Your task to perform on an android device: empty trash in the gmail app Image 0: 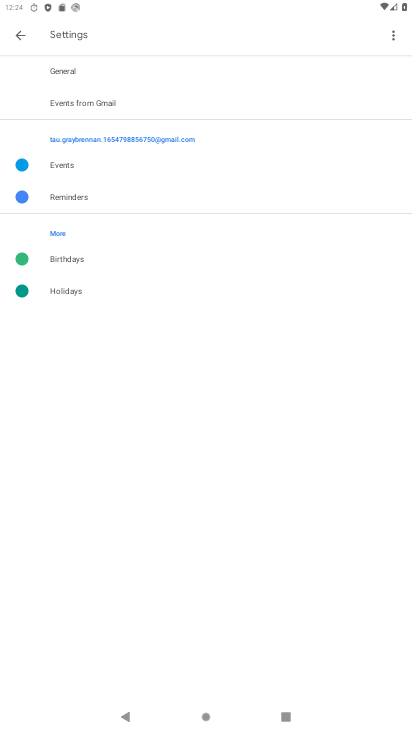
Step 0: press home button
Your task to perform on an android device: empty trash in the gmail app Image 1: 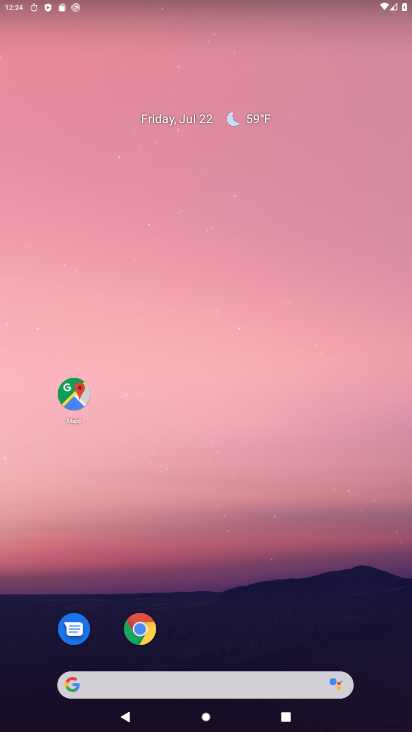
Step 1: drag from (243, 593) to (259, 116)
Your task to perform on an android device: empty trash in the gmail app Image 2: 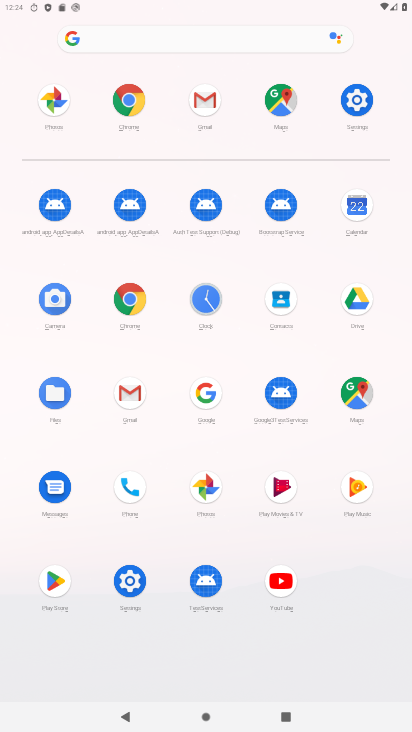
Step 2: click (129, 402)
Your task to perform on an android device: empty trash in the gmail app Image 3: 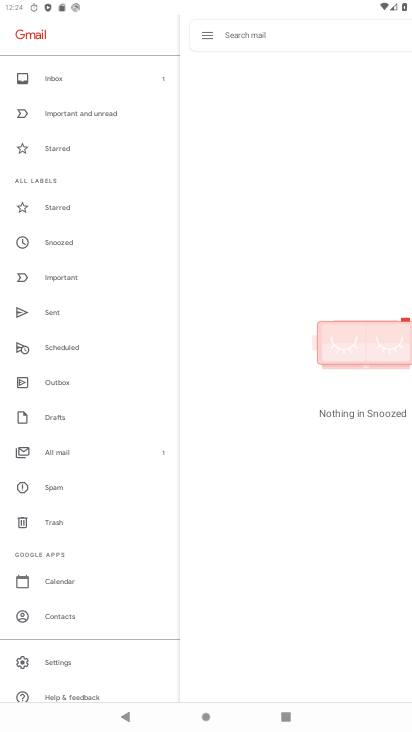
Step 3: click (50, 518)
Your task to perform on an android device: empty trash in the gmail app Image 4: 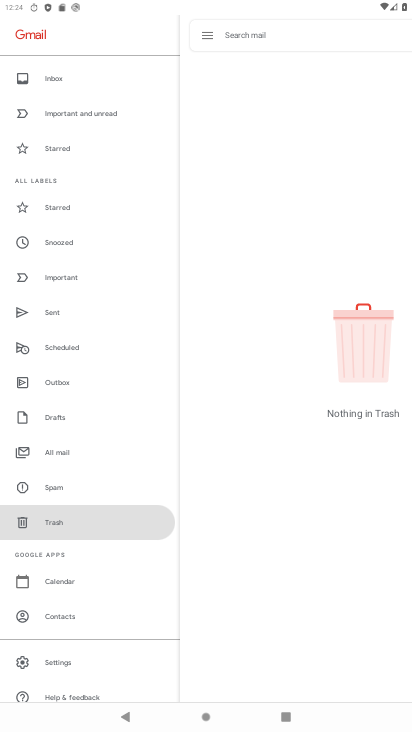
Step 4: task complete